Your task to perform on an android device: Go to wifi settings Image 0: 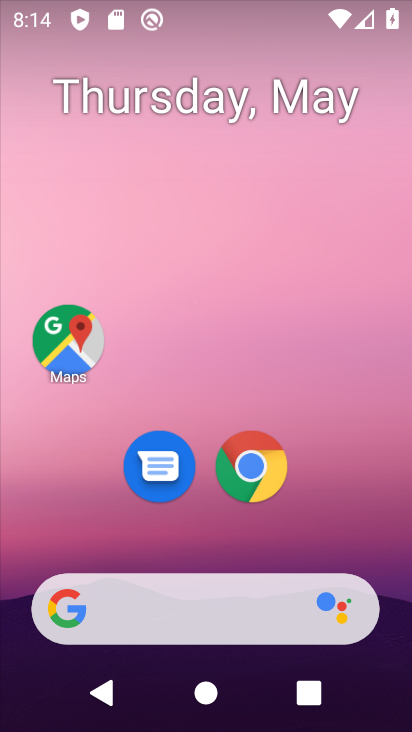
Step 0: drag from (373, 499) to (325, 75)
Your task to perform on an android device: Go to wifi settings Image 1: 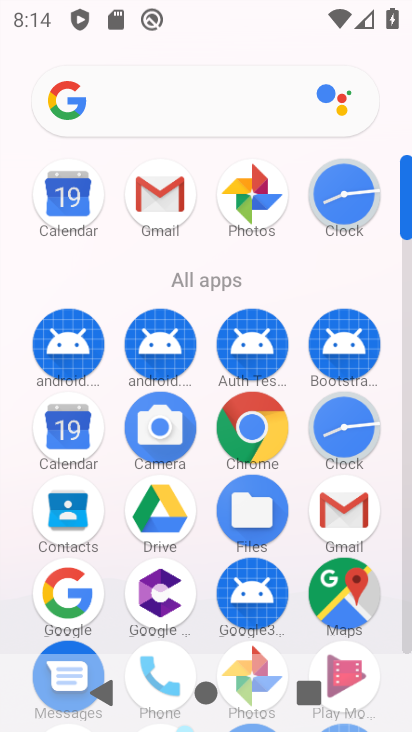
Step 1: click (408, 650)
Your task to perform on an android device: Go to wifi settings Image 2: 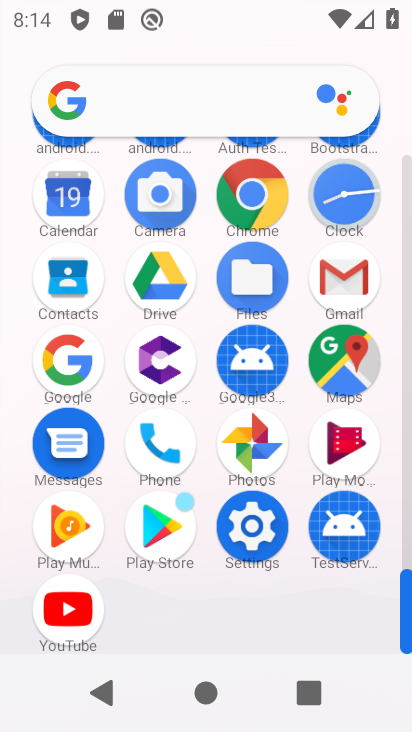
Step 2: click (232, 544)
Your task to perform on an android device: Go to wifi settings Image 3: 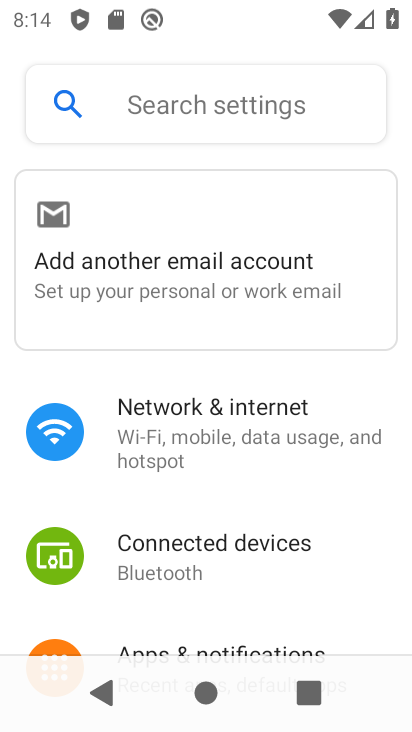
Step 3: click (229, 445)
Your task to perform on an android device: Go to wifi settings Image 4: 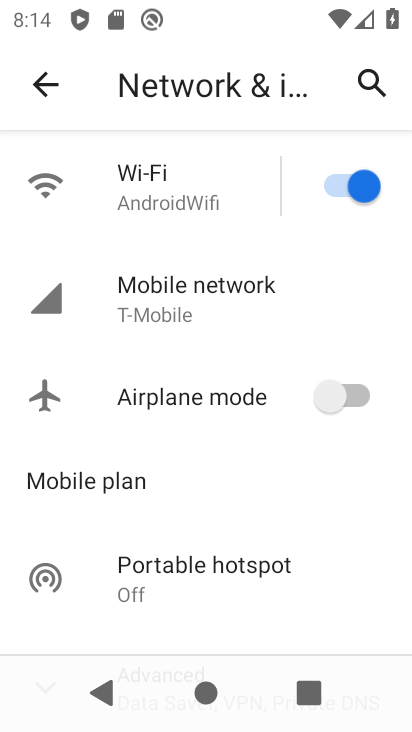
Step 4: click (175, 186)
Your task to perform on an android device: Go to wifi settings Image 5: 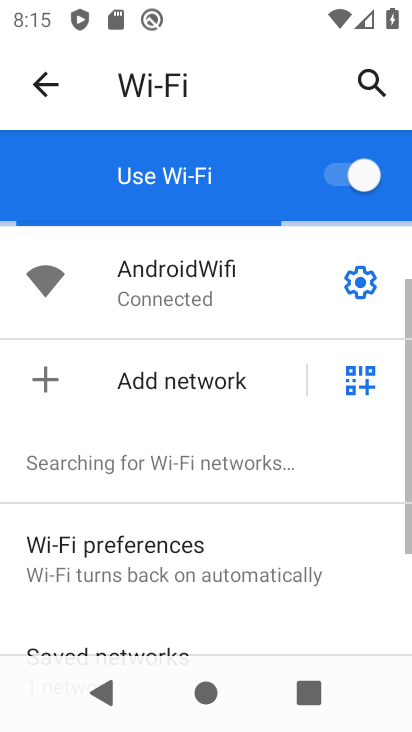
Step 5: task complete